Your task to perform on an android device: Go to internet settings Image 0: 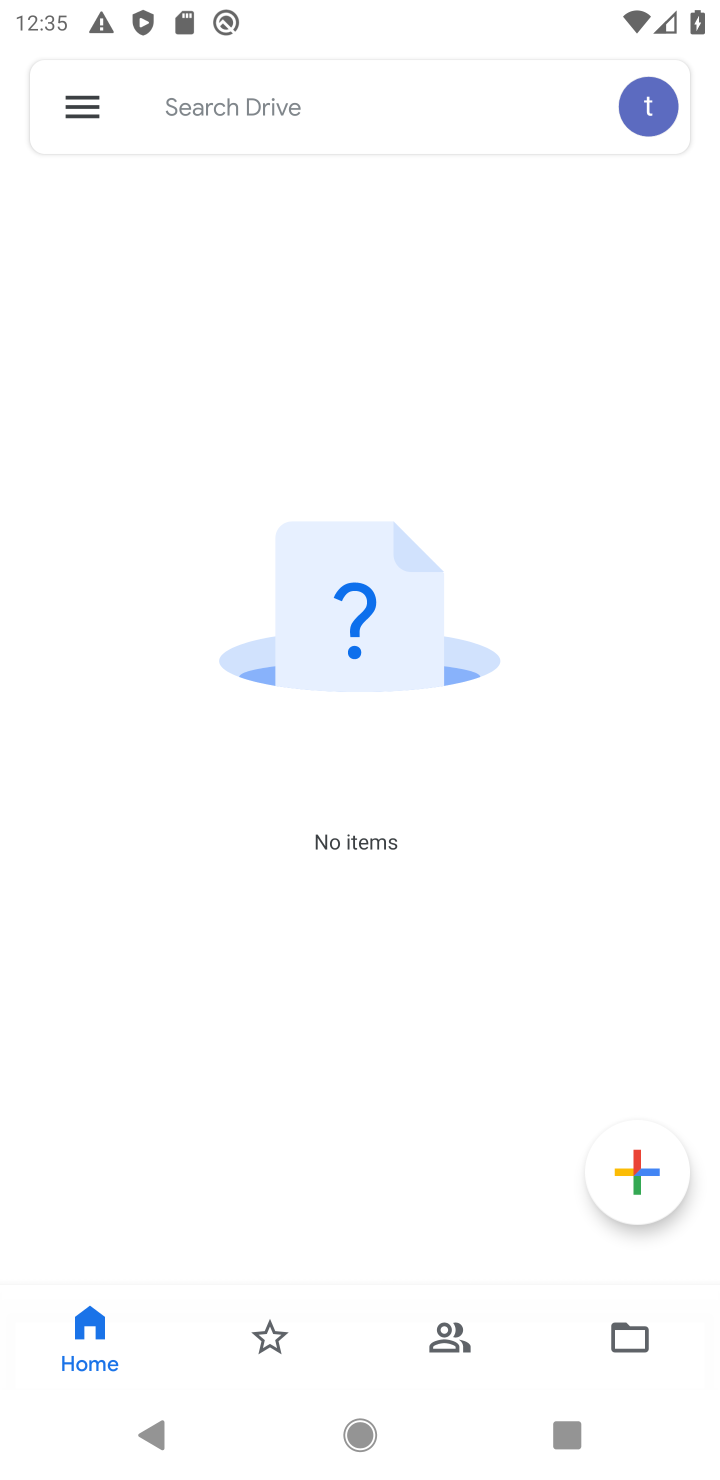
Step 0: press home button
Your task to perform on an android device: Go to internet settings Image 1: 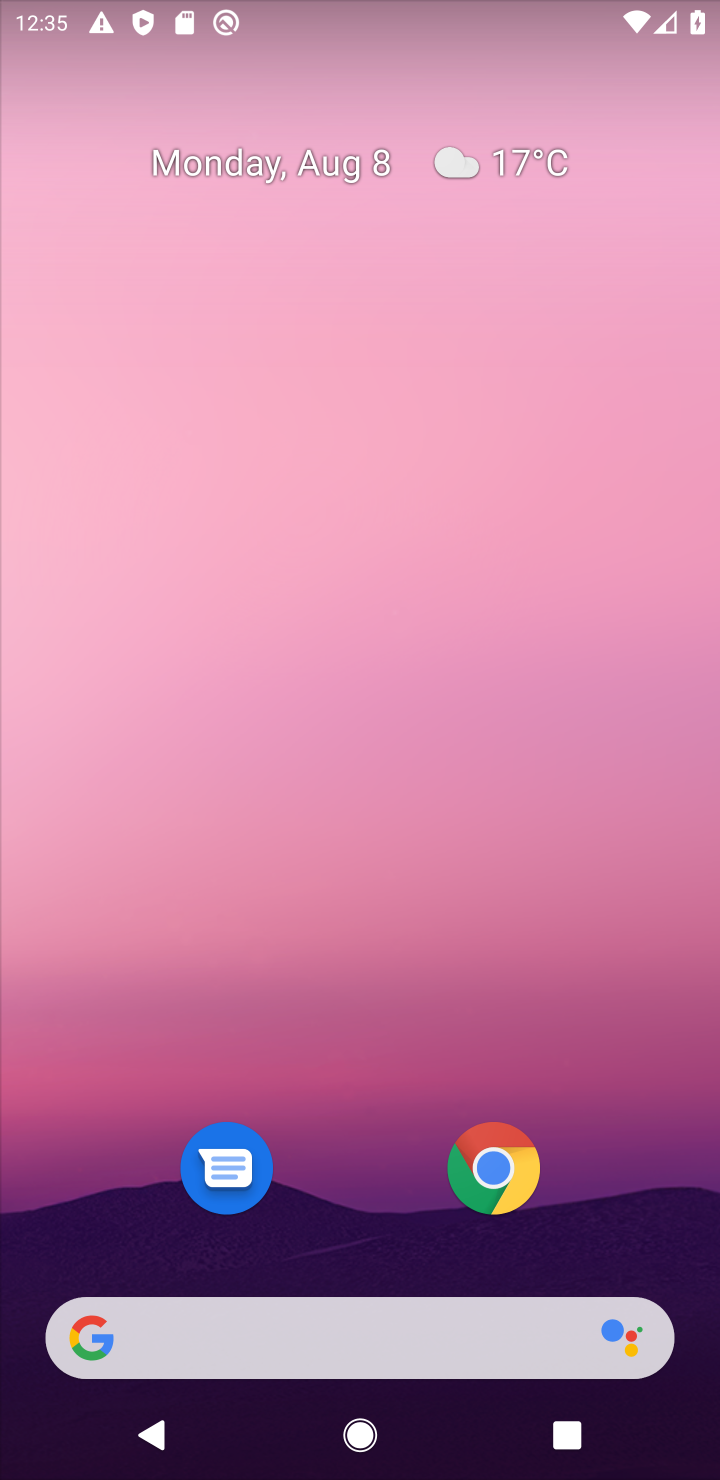
Step 1: drag from (72, 1405) to (332, 96)
Your task to perform on an android device: Go to internet settings Image 2: 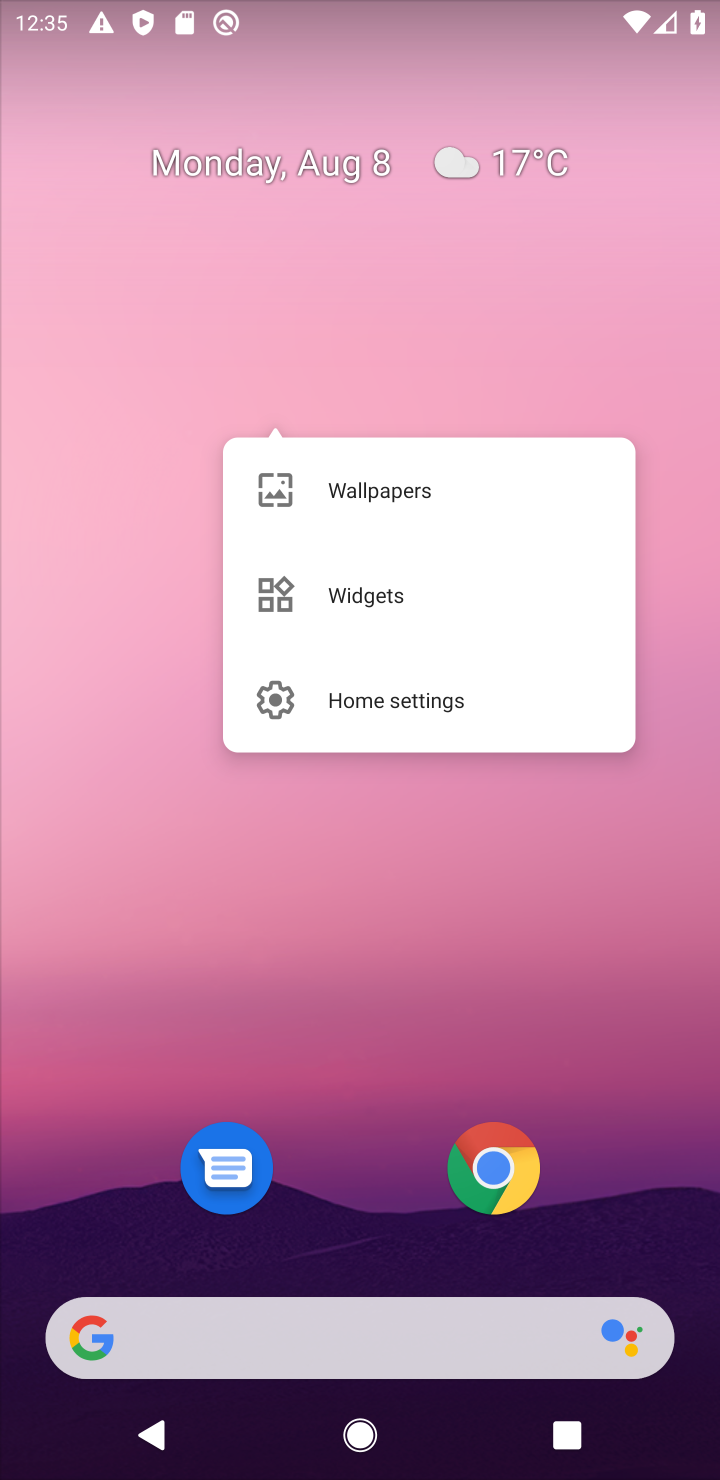
Step 2: click (82, 1440)
Your task to perform on an android device: Go to internet settings Image 3: 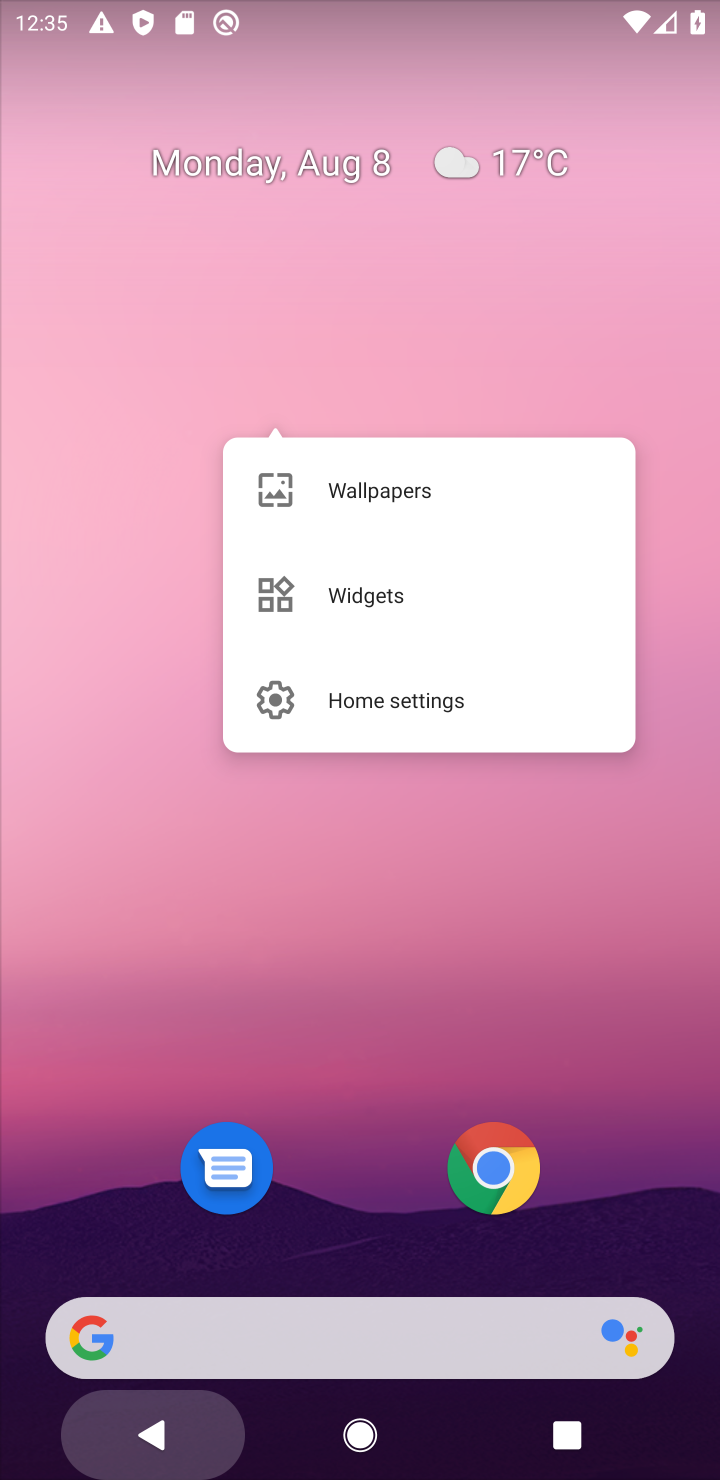
Step 3: task complete